Your task to perform on an android device: open app "Skype" (install if not already installed) Image 0: 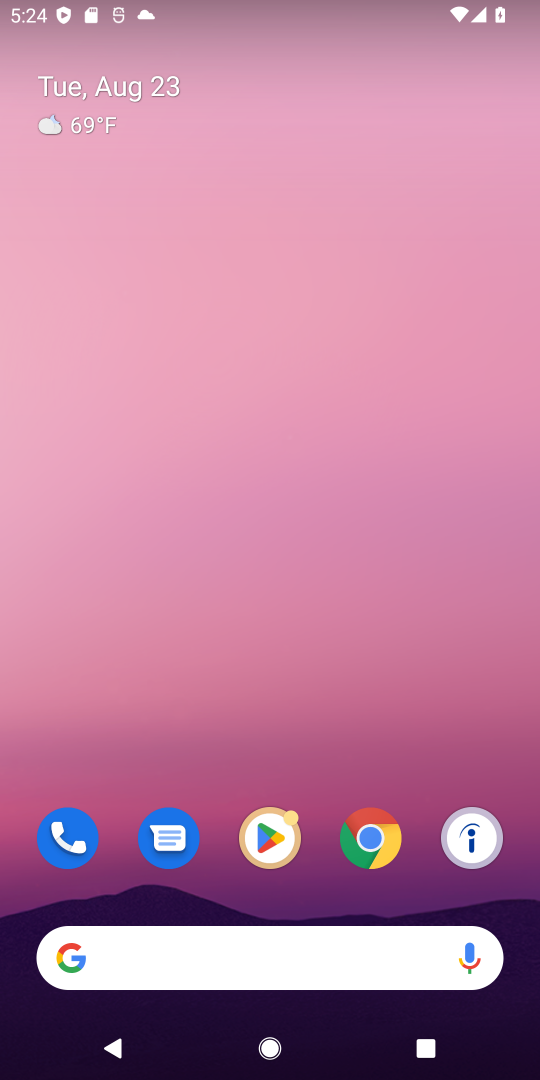
Step 0: click (273, 838)
Your task to perform on an android device: open app "Skype" (install if not already installed) Image 1: 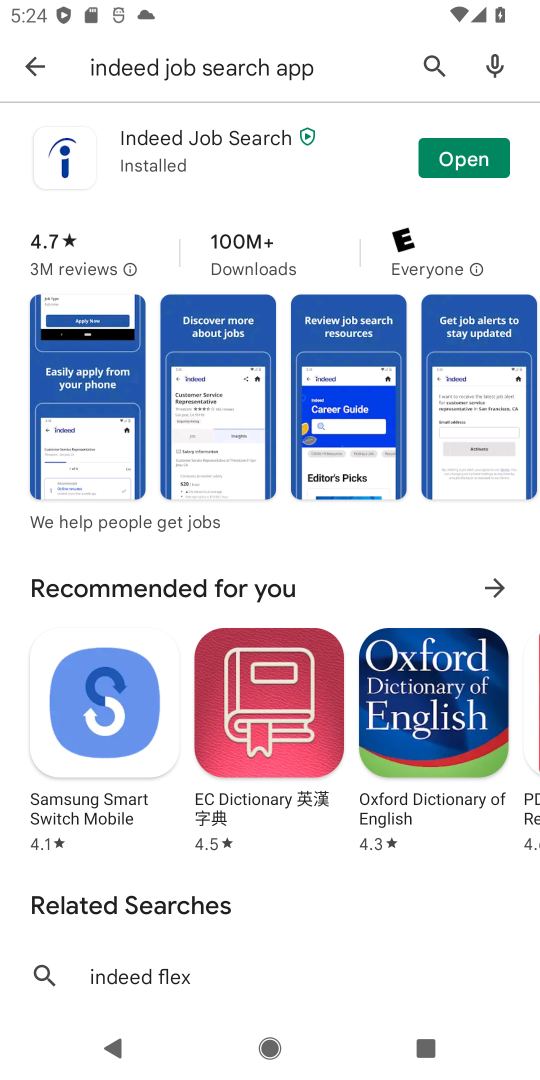
Step 1: click (430, 62)
Your task to perform on an android device: open app "Skype" (install if not already installed) Image 2: 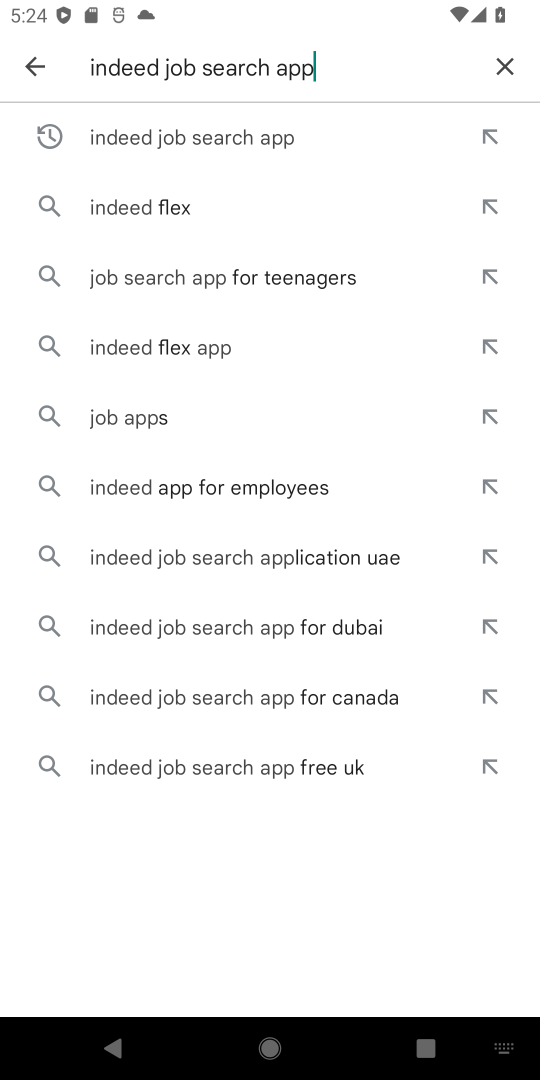
Step 2: click (503, 60)
Your task to perform on an android device: open app "Skype" (install if not already installed) Image 3: 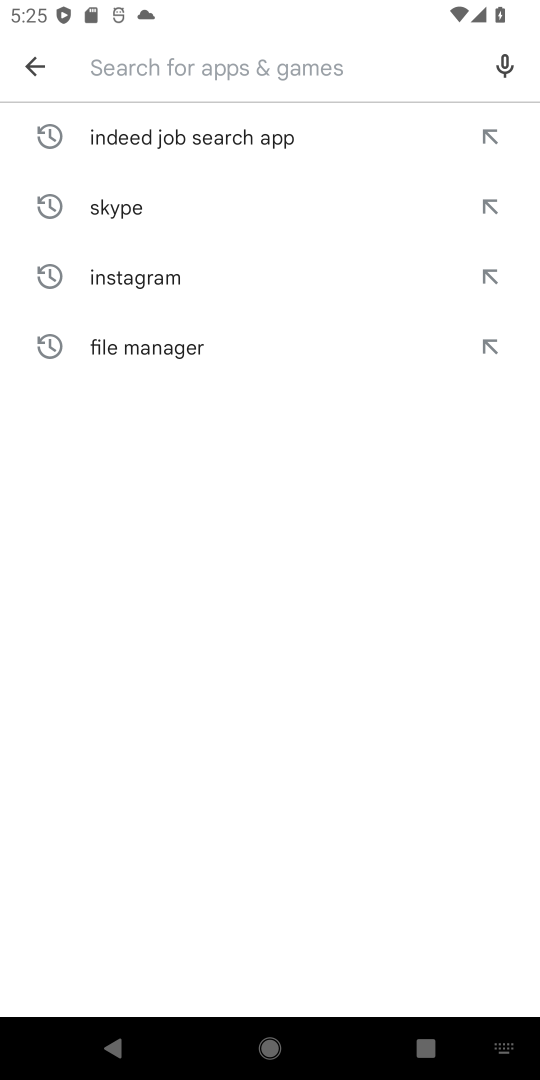
Step 3: type "Skype"
Your task to perform on an android device: open app "Skype" (install if not already installed) Image 4: 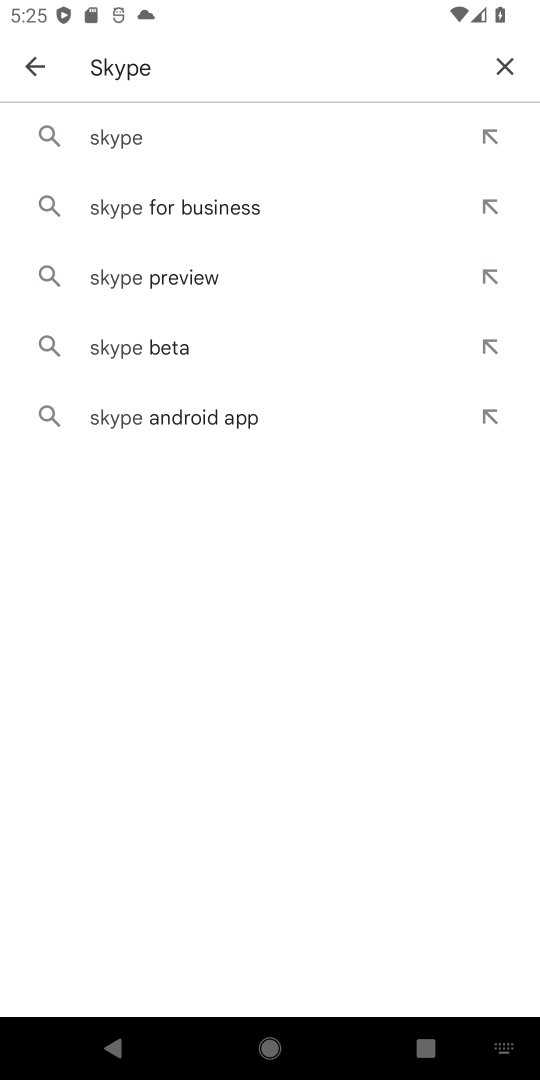
Step 4: click (116, 138)
Your task to perform on an android device: open app "Skype" (install if not already installed) Image 5: 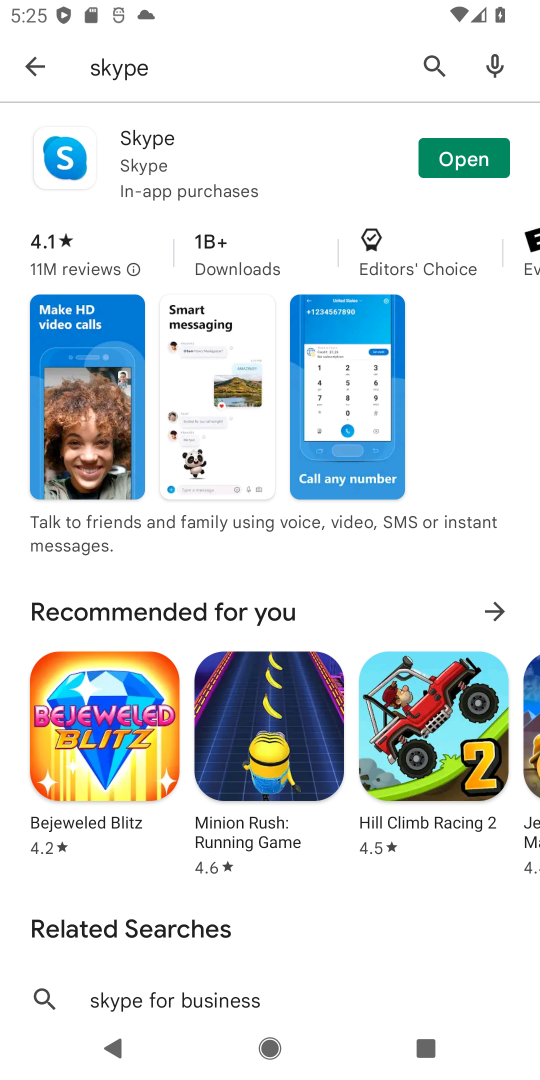
Step 5: click (458, 165)
Your task to perform on an android device: open app "Skype" (install if not already installed) Image 6: 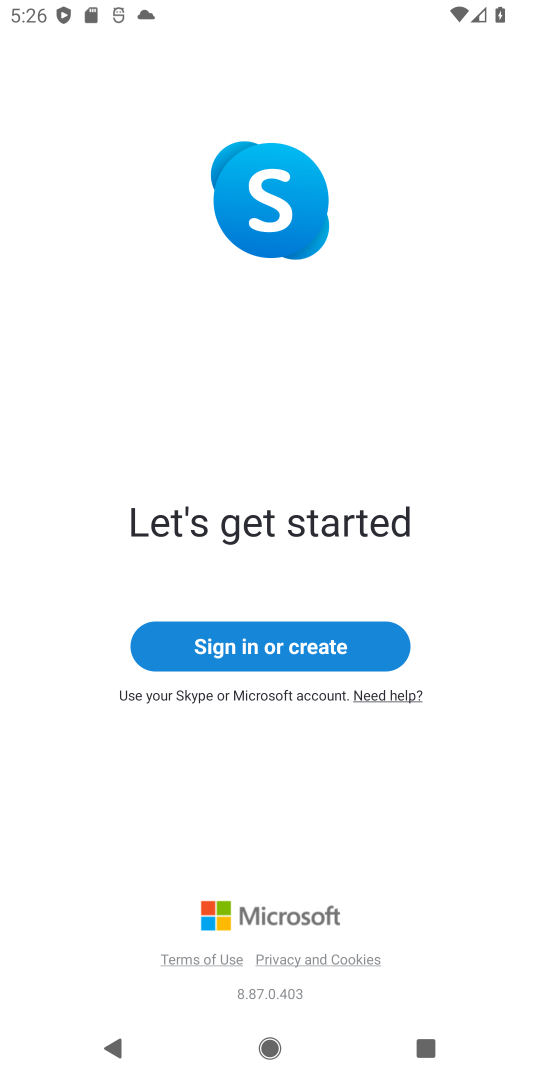
Step 6: task complete